Your task to perform on an android device: turn on priority inbox in the gmail app Image 0: 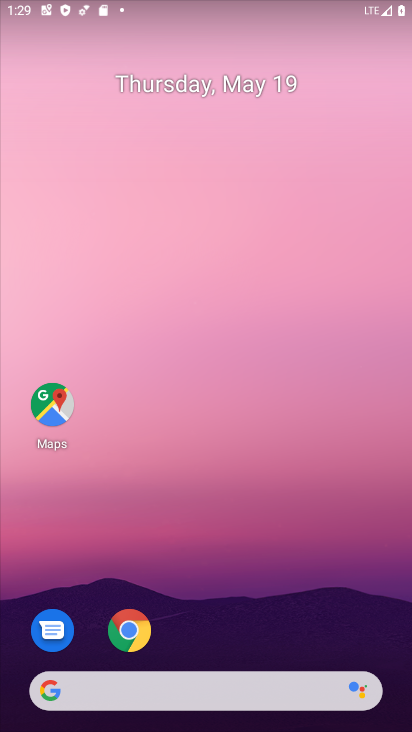
Step 0: drag from (209, 659) to (188, 183)
Your task to perform on an android device: turn on priority inbox in the gmail app Image 1: 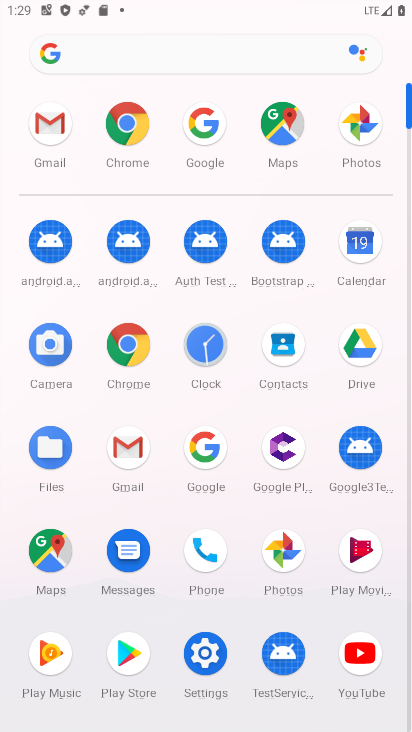
Step 1: click (122, 462)
Your task to perform on an android device: turn on priority inbox in the gmail app Image 2: 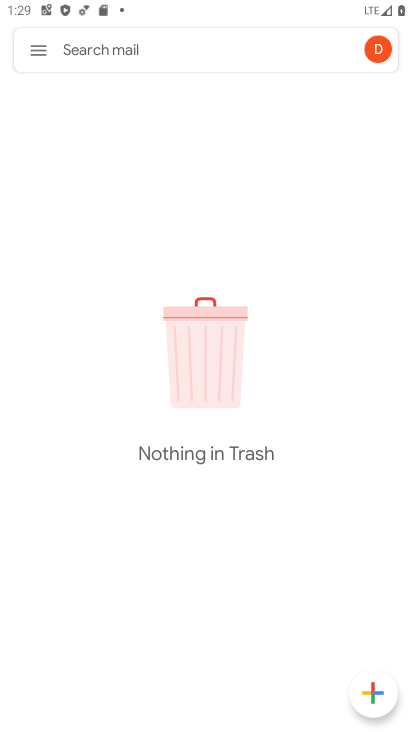
Step 2: click (36, 47)
Your task to perform on an android device: turn on priority inbox in the gmail app Image 3: 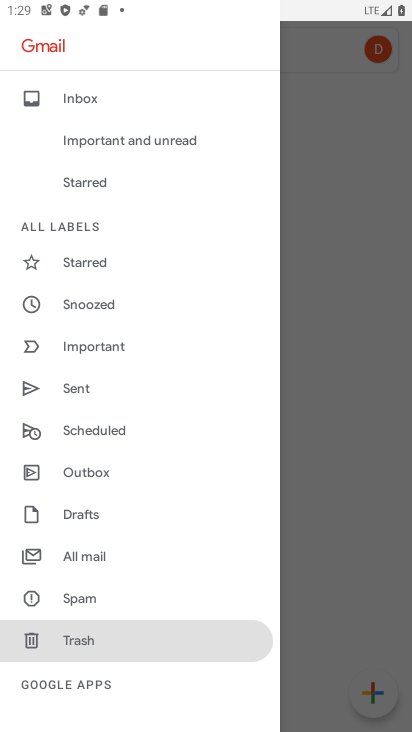
Step 3: drag from (109, 629) to (147, 115)
Your task to perform on an android device: turn on priority inbox in the gmail app Image 4: 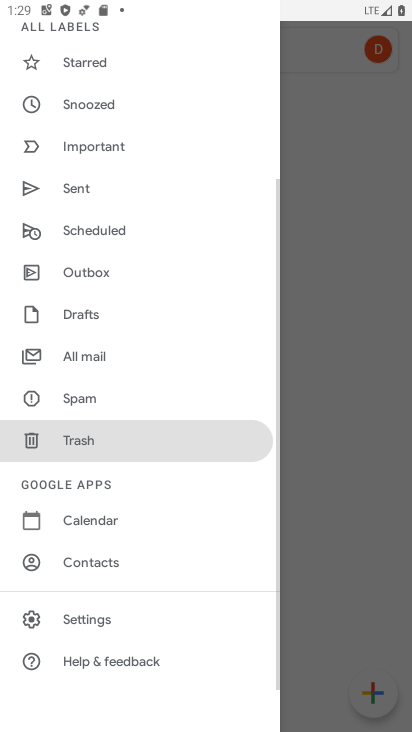
Step 4: click (108, 601)
Your task to perform on an android device: turn on priority inbox in the gmail app Image 5: 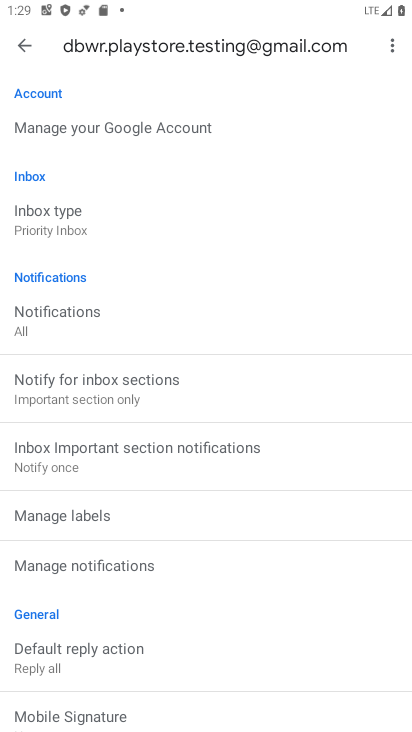
Step 5: click (152, 227)
Your task to perform on an android device: turn on priority inbox in the gmail app Image 6: 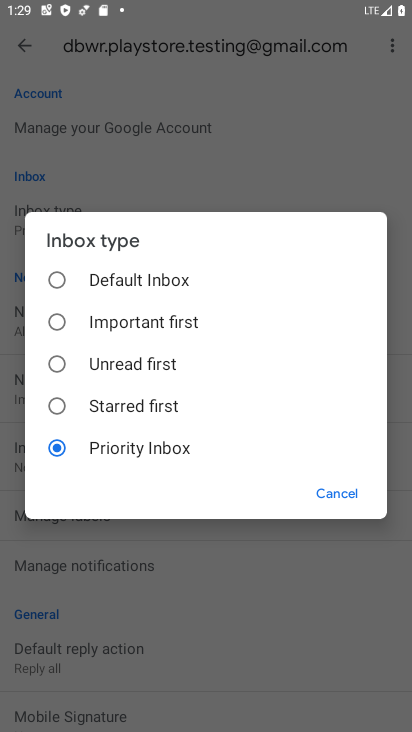
Step 6: click (119, 446)
Your task to perform on an android device: turn on priority inbox in the gmail app Image 7: 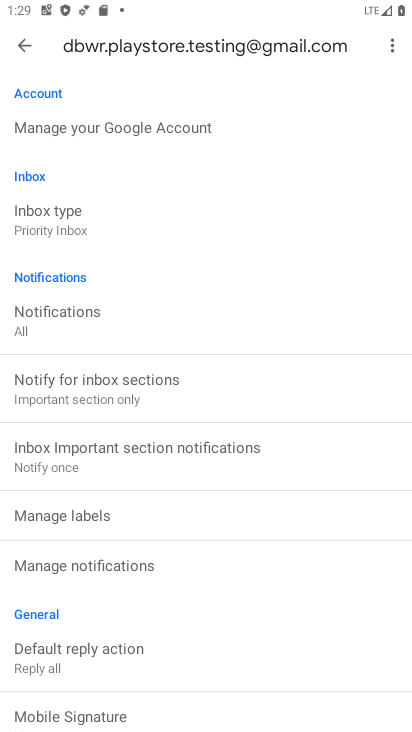
Step 7: task complete